Your task to perform on an android device: Search for Mexican restaurants on Maps Image 0: 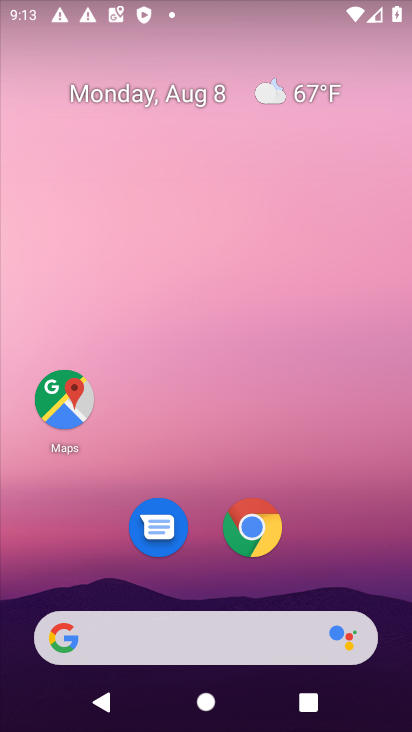
Step 0: click (69, 389)
Your task to perform on an android device: Search for Mexican restaurants on Maps Image 1: 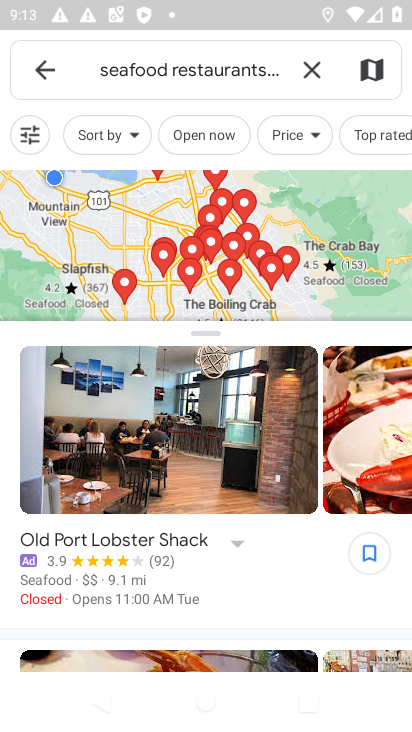
Step 1: click (311, 60)
Your task to perform on an android device: Search for Mexican restaurants on Maps Image 2: 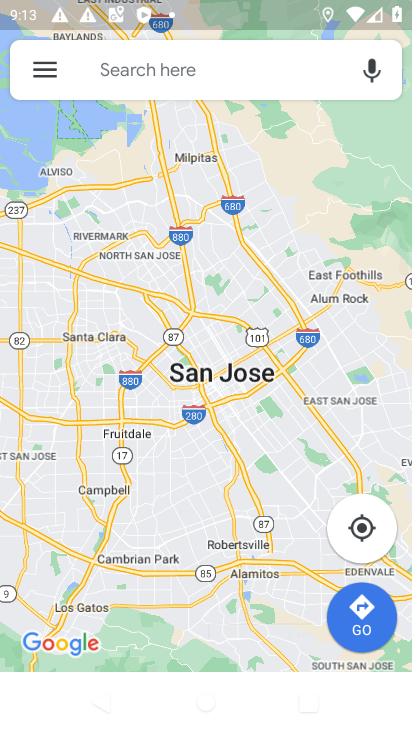
Step 2: type "Mexican restaurants"
Your task to perform on an android device: Search for Mexican restaurants on Maps Image 3: 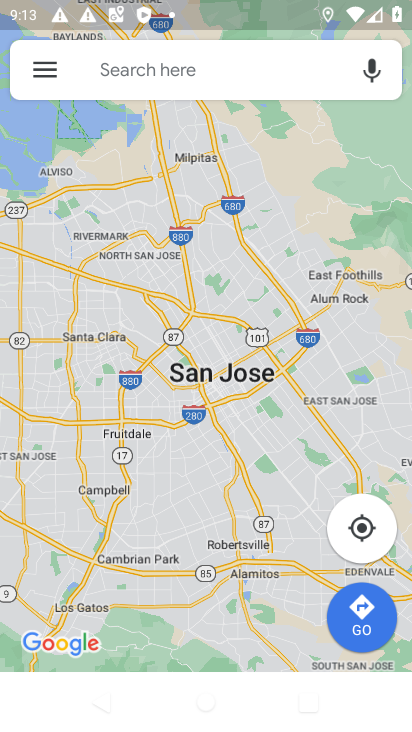
Step 3: click (142, 66)
Your task to perform on an android device: Search for Mexican restaurants on Maps Image 4: 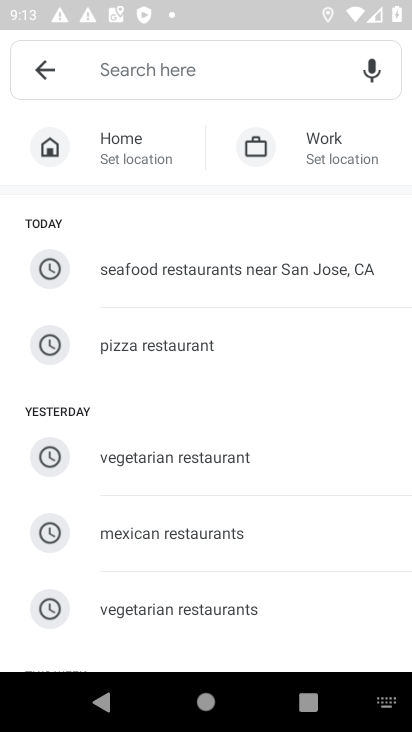
Step 4: type "Mexican restaurants"
Your task to perform on an android device: Search for Mexican restaurants on Maps Image 5: 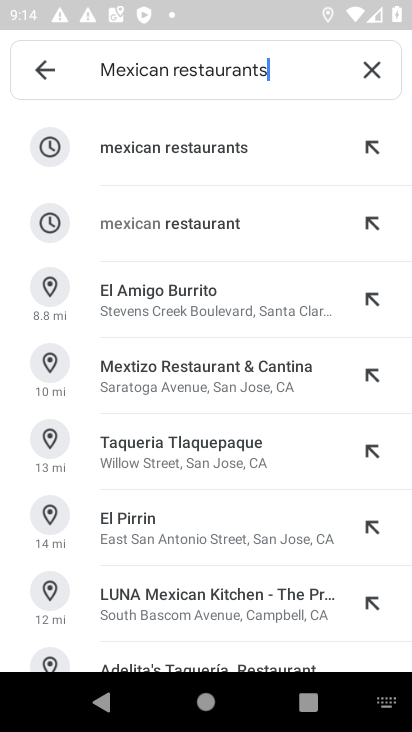
Step 5: click (208, 148)
Your task to perform on an android device: Search for Mexican restaurants on Maps Image 6: 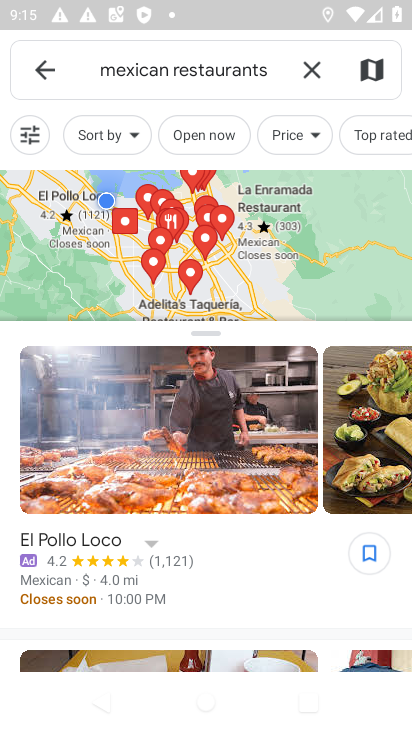
Step 6: task complete